Your task to perform on an android device: Open internet settings Image 0: 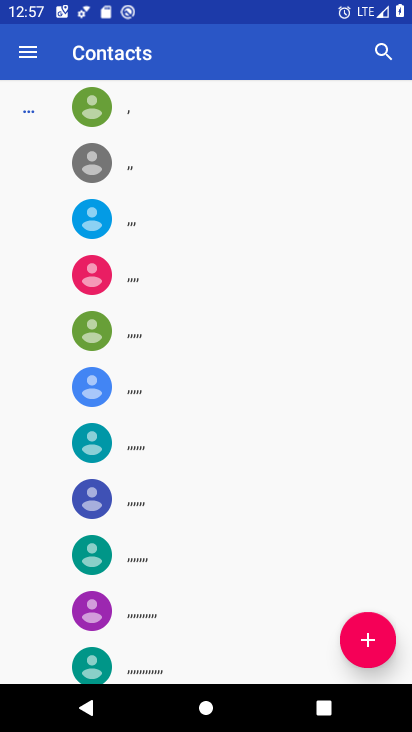
Step 0: press home button
Your task to perform on an android device: Open internet settings Image 1: 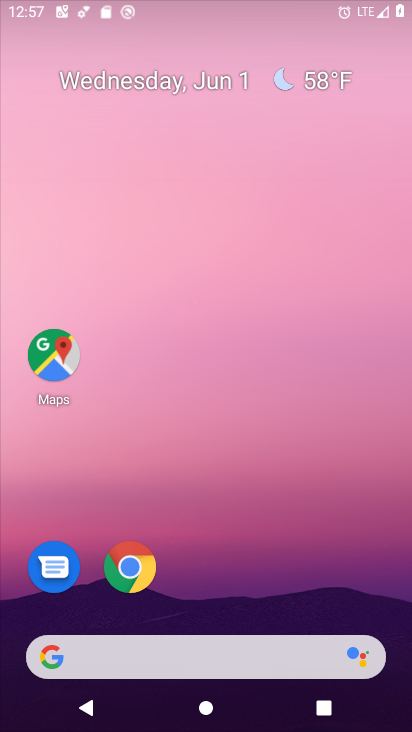
Step 1: drag from (226, 584) to (224, 62)
Your task to perform on an android device: Open internet settings Image 2: 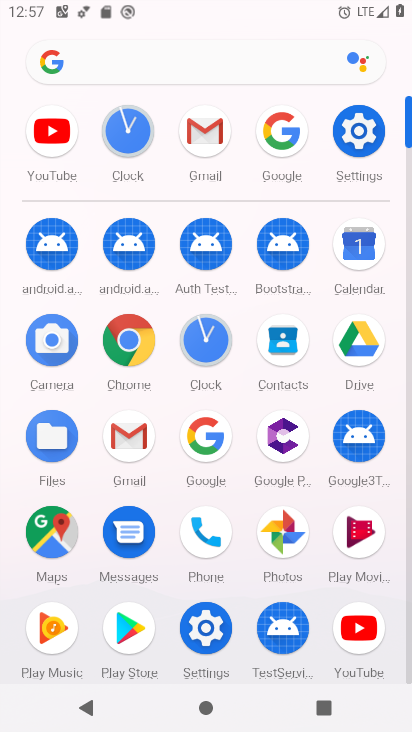
Step 2: click (364, 130)
Your task to perform on an android device: Open internet settings Image 3: 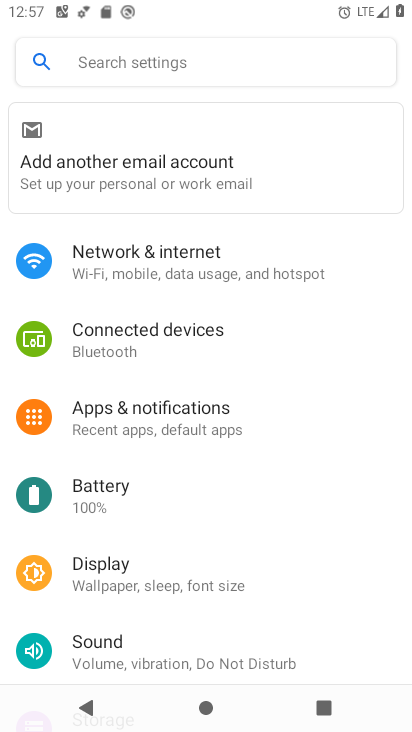
Step 3: click (200, 241)
Your task to perform on an android device: Open internet settings Image 4: 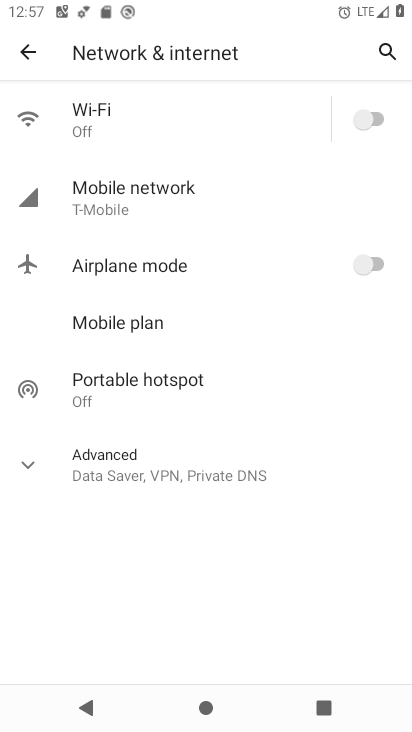
Step 4: click (170, 123)
Your task to perform on an android device: Open internet settings Image 5: 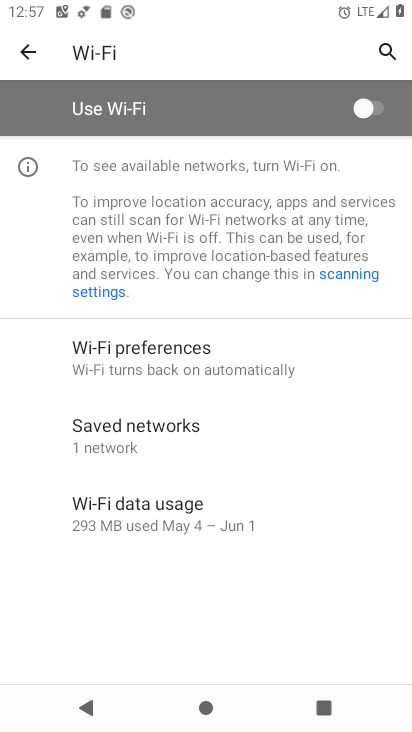
Step 5: click (381, 108)
Your task to perform on an android device: Open internet settings Image 6: 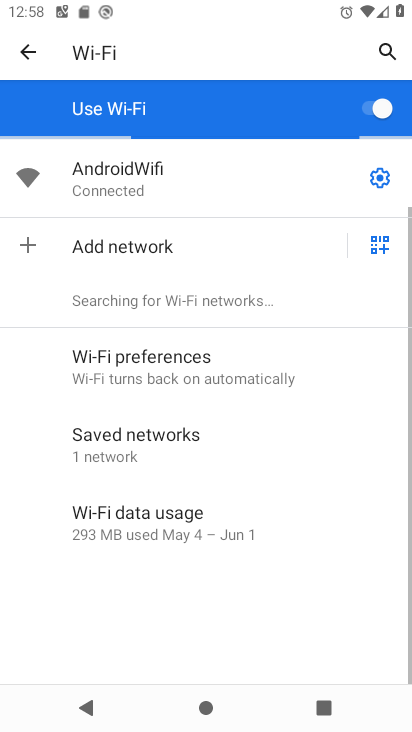
Step 6: click (170, 176)
Your task to perform on an android device: Open internet settings Image 7: 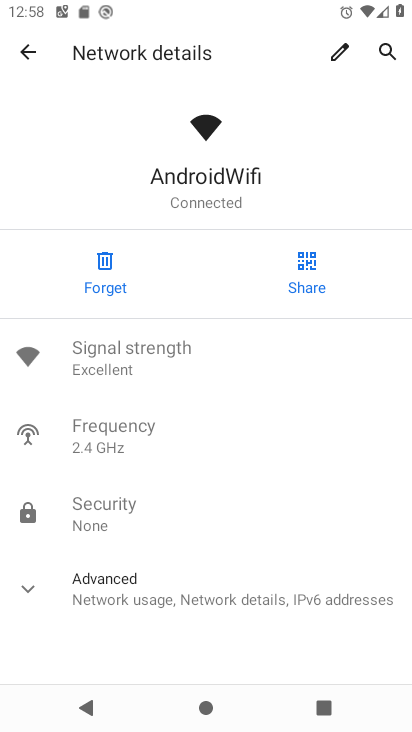
Step 7: task complete